Your task to perform on an android device: open app "Upside-Cash back on gas & food" Image 0: 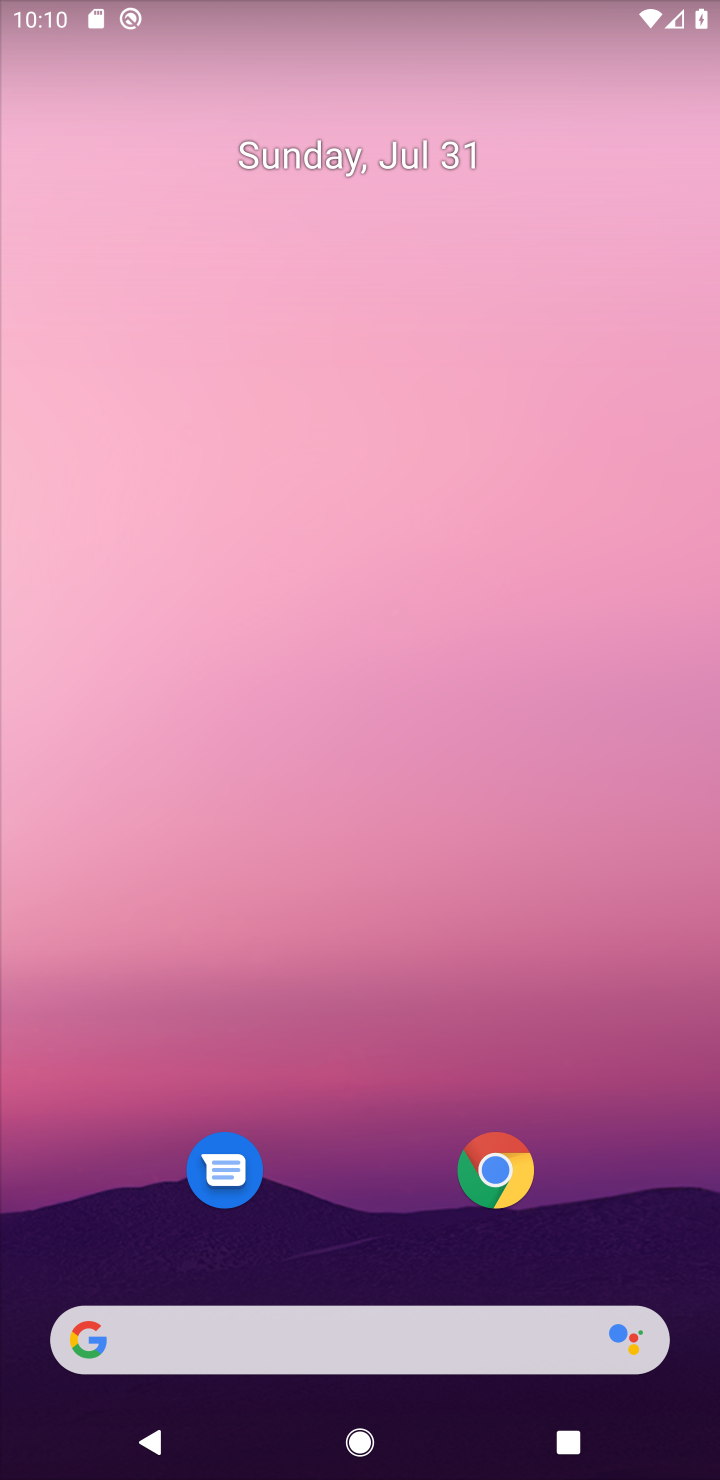
Step 0: drag from (589, 1123) to (422, 15)
Your task to perform on an android device: open app "Upside-Cash back on gas & food" Image 1: 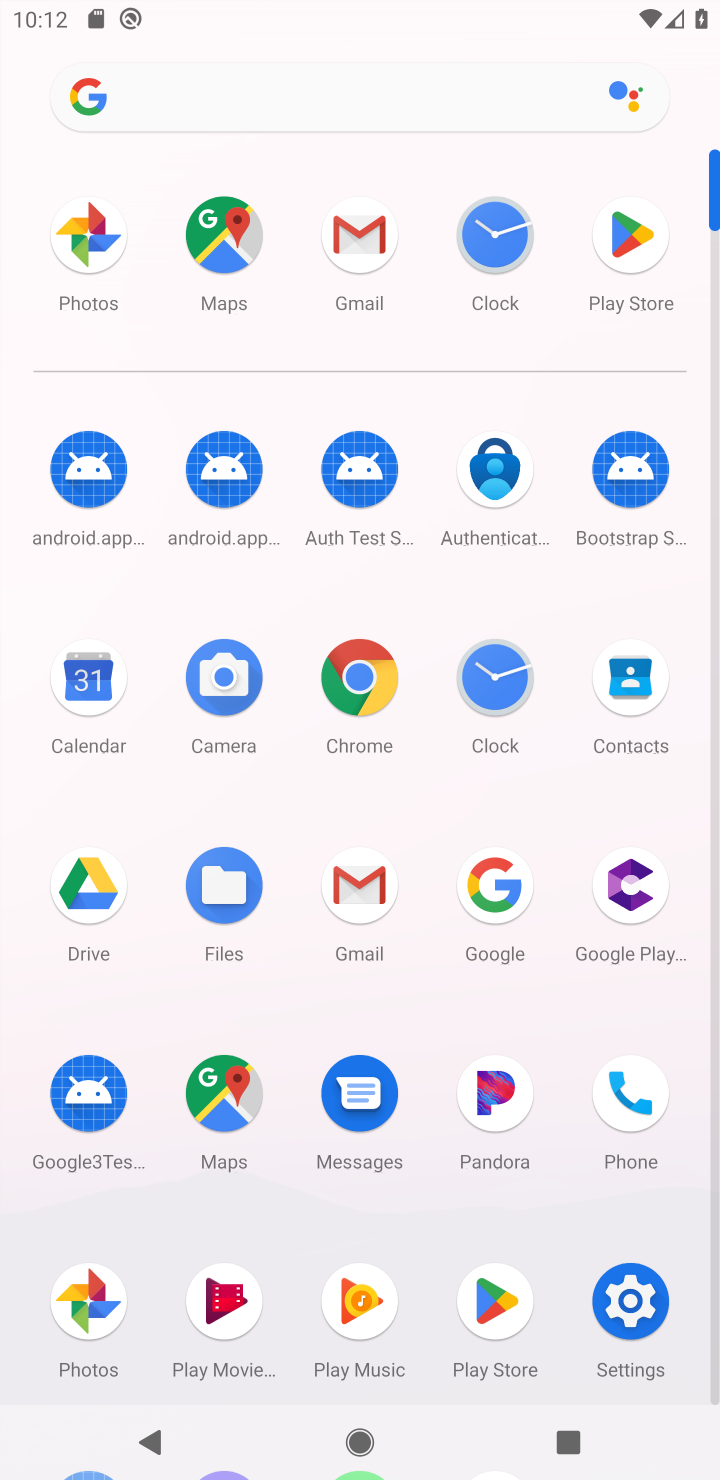
Step 1: click (630, 238)
Your task to perform on an android device: open app "Upside-Cash back on gas & food" Image 2: 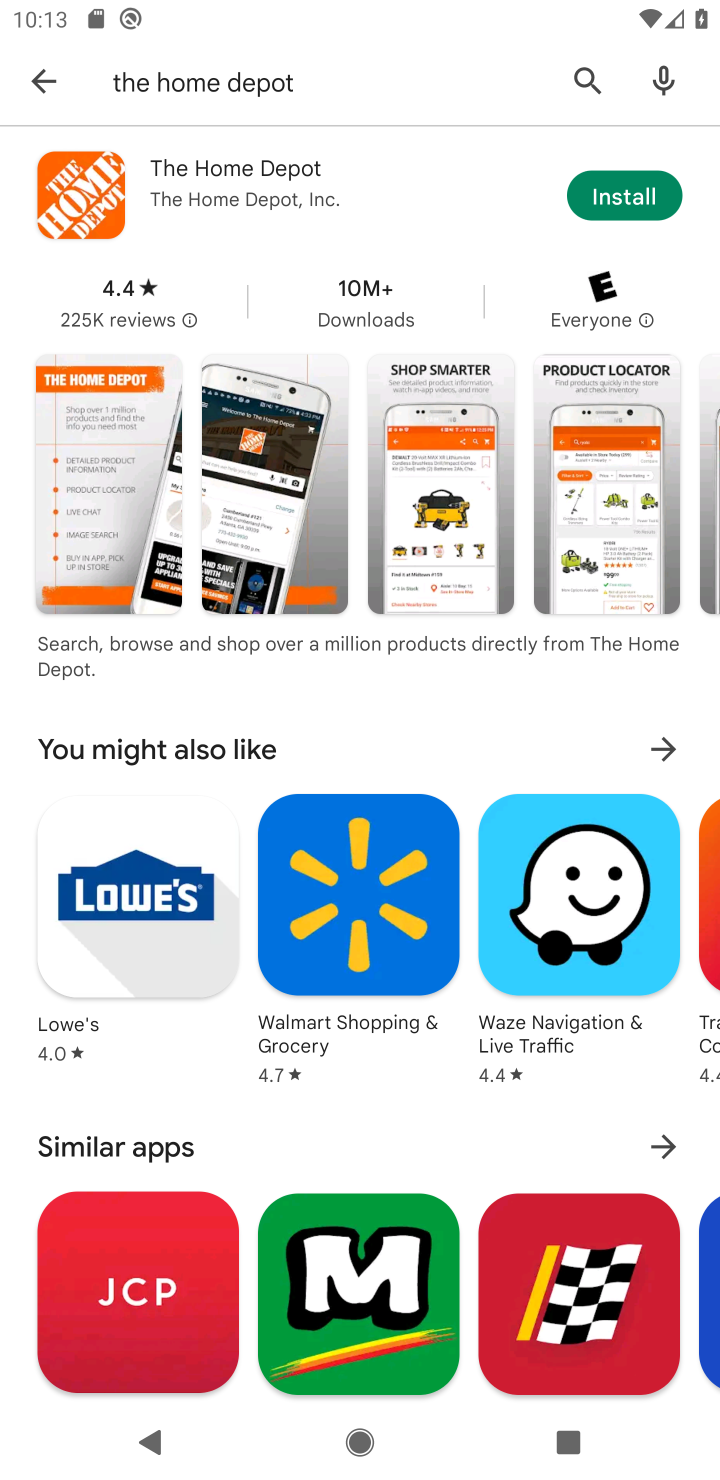
Step 2: press back button
Your task to perform on an android device: open app "Upside-Cash back on gas & food" Image 3: 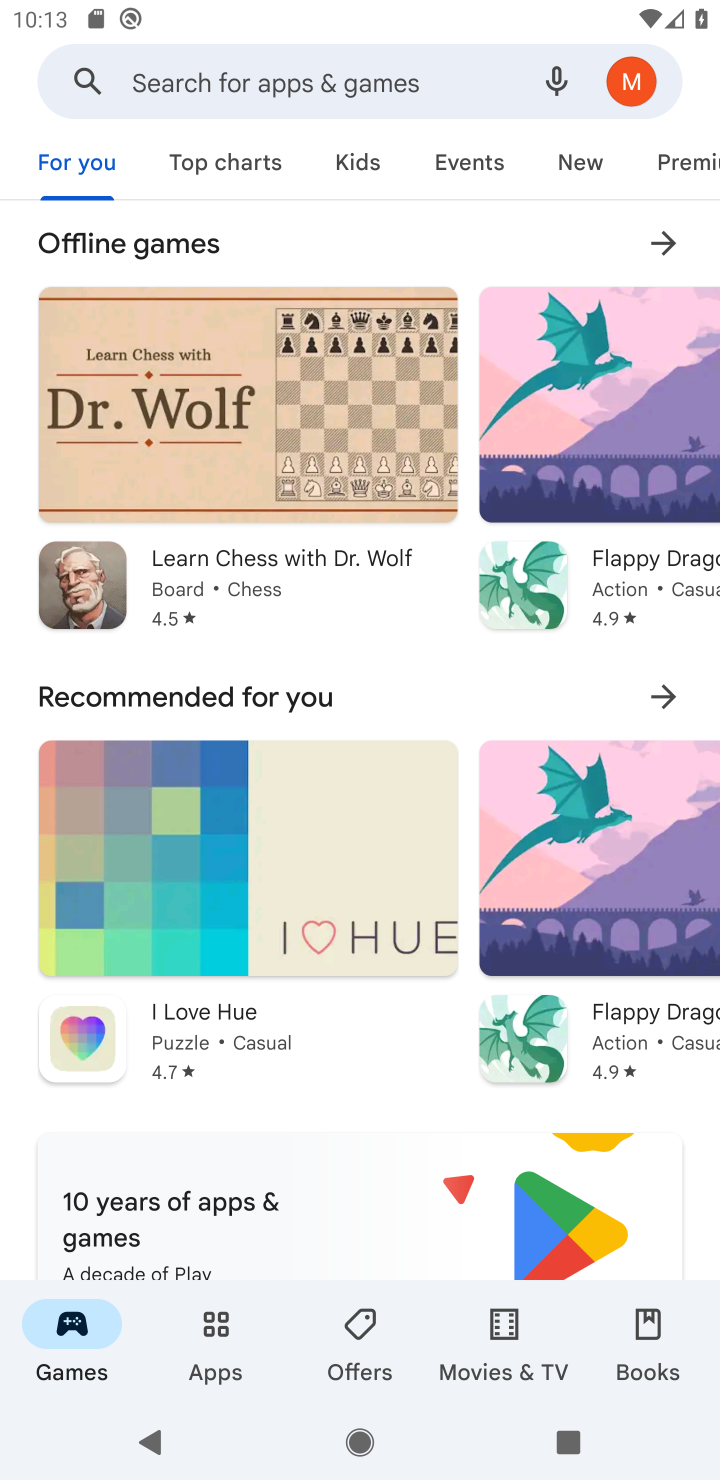
Step 3: click (169, 88)
Your task to perform on an android device: open app "Upside-Cash back on gas & food" Image 4: 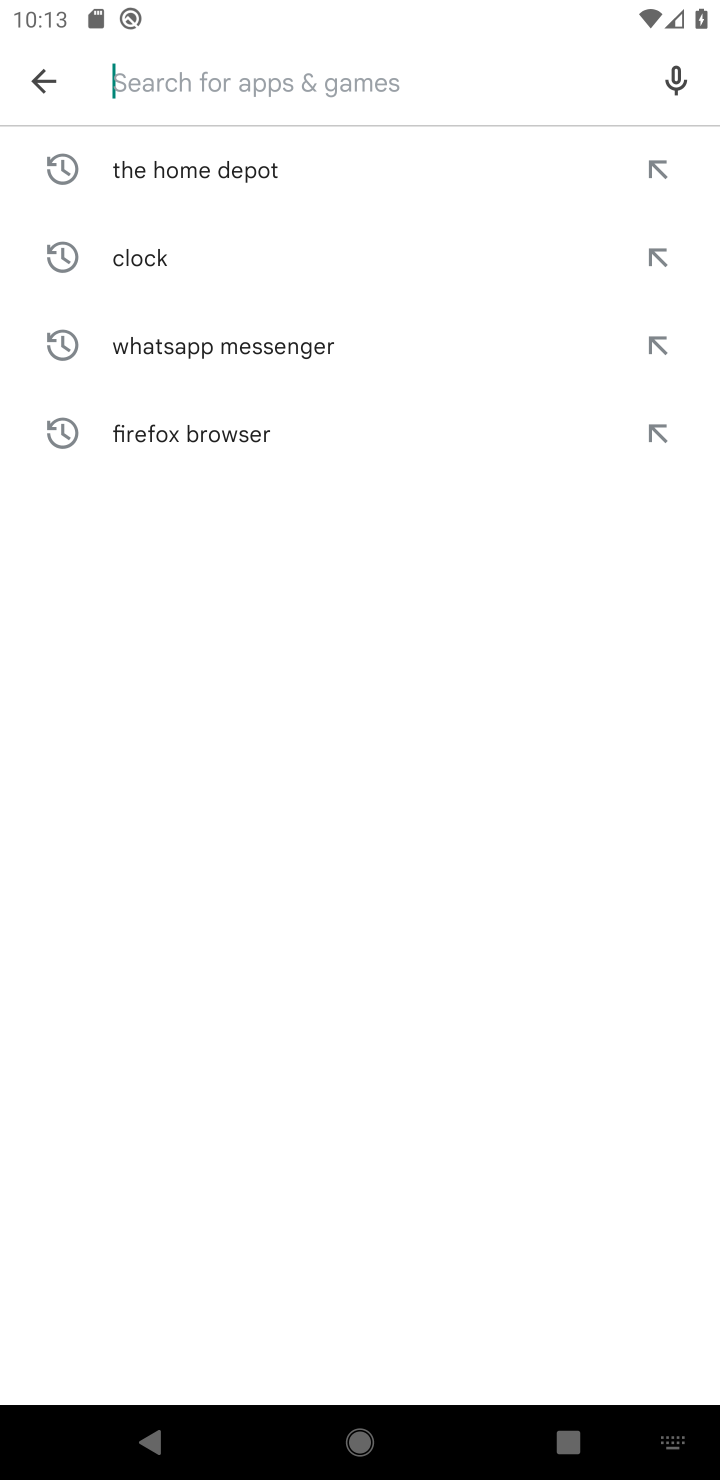
Step 4: type "Upside-Cash back on gas & food"
Your task to perform on an android device: open app "Upside-Cash back on gas & food" Image 5: 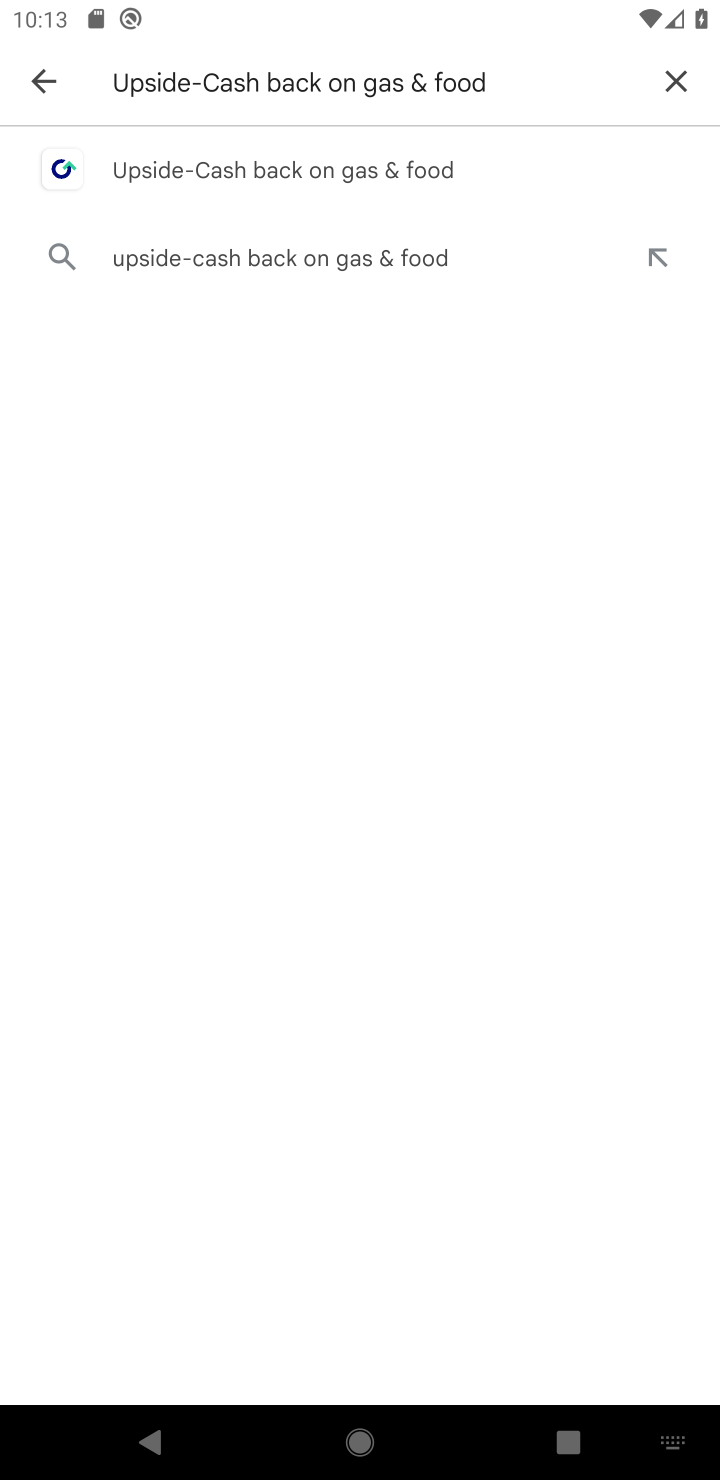
Step 5: click (201, 180)
Your task to perform on an android device: open app "Upside-Cash back on gas & food" Image 6: 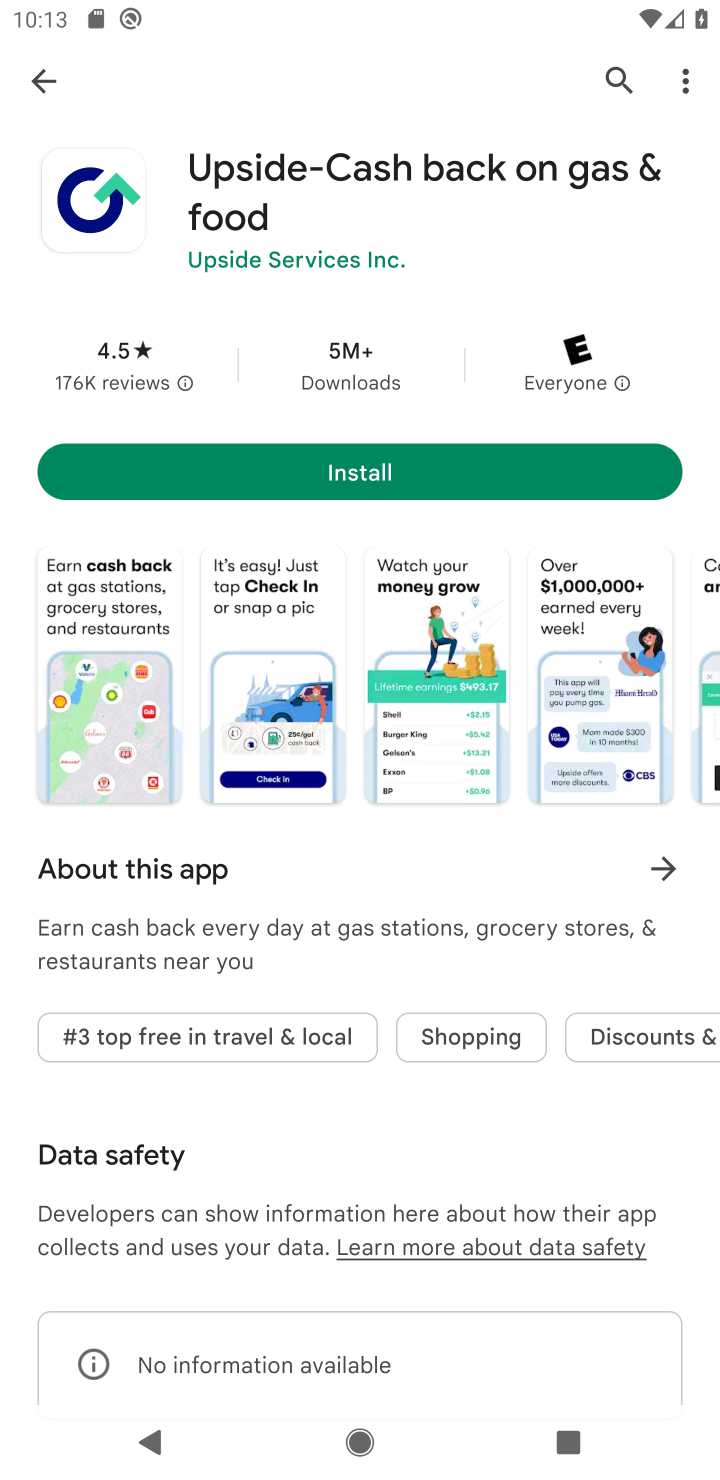
Step 6: task complete